Your task to perform on an android device: Open settings Image 0: 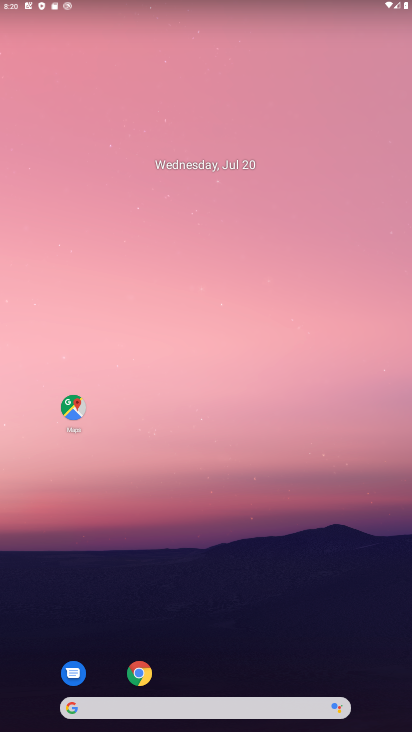
Step 0: drag from (186, 637) to (19, 8)
Your task to perform on an android device: Open settings Image 1: 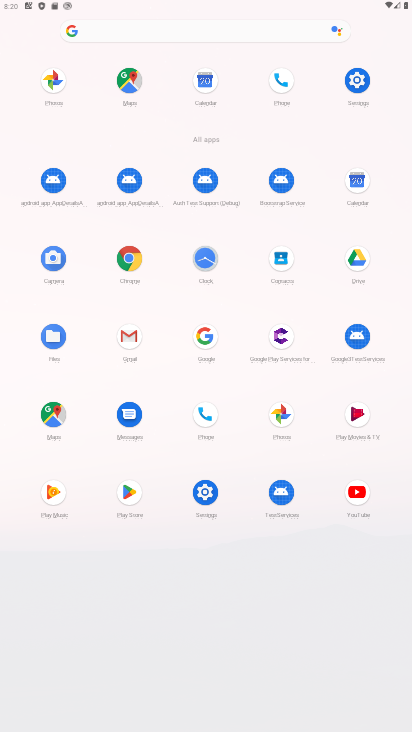
Step 1: click (200, 497)
Your task to perform on an android device: Open settings Image 2: 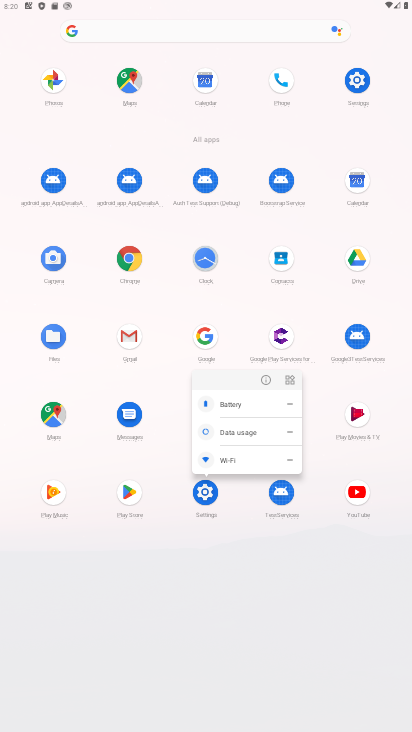
Step 2: click (266, 379)
Your task to perform on an android device: Open settings Image 3: 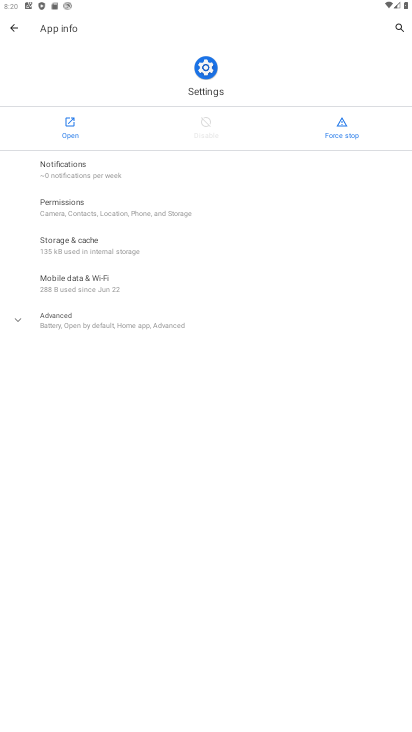
Step 3: click (71, 133)
Your task to perform on an android device: Open settings Image 4: 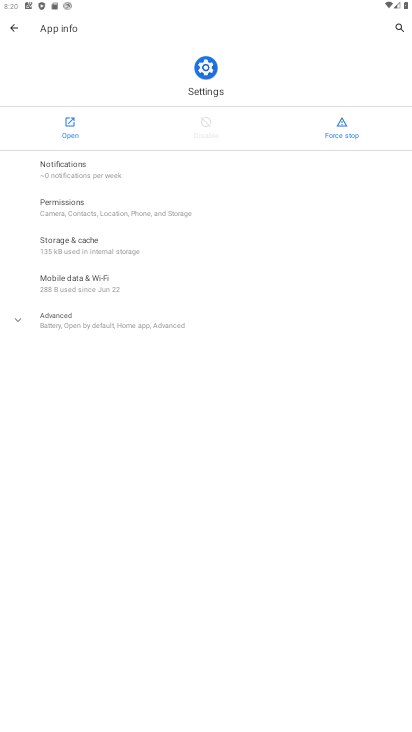
Step 4: click (70, 134)
Your task to perform on an android device: Open settings Image 5: 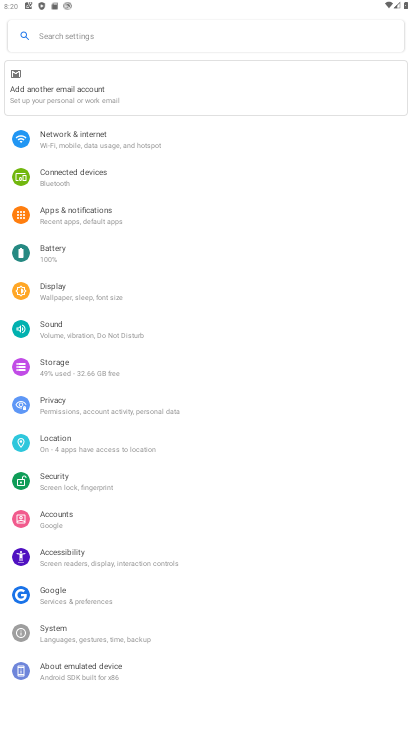
Step 5: task complete